Your task to perform on an android device: see sites visited before in the chrome app Image 0: 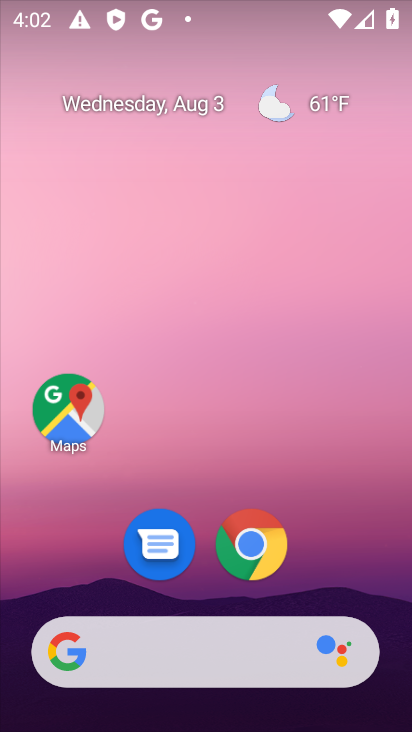
Step 0: drag from (201, 572) to (204, 54)
Your task to perform on an android device: see sites visited before in the chrome app Image 1: 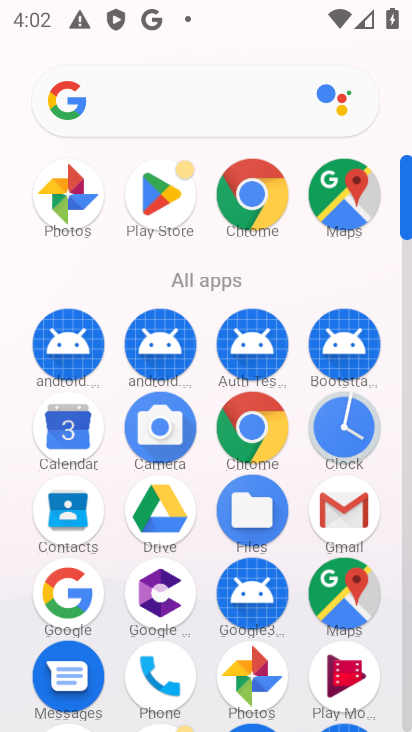
Step 1: click (250, 422)
Your task to perform on an android device: see sites visited before in the chrome app Image 2: 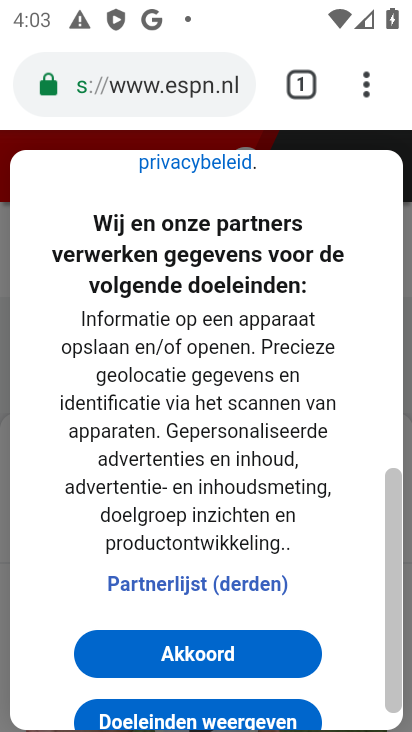
Step 2: task complete